Your task to perform on an android device: Open Amazon Image 0: 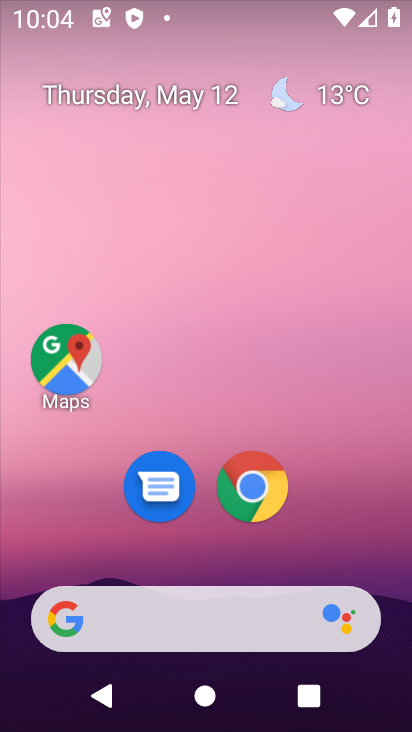
Step 0: click (261, 488)
Your task to perform on an android device: Open Amazon Image 1: 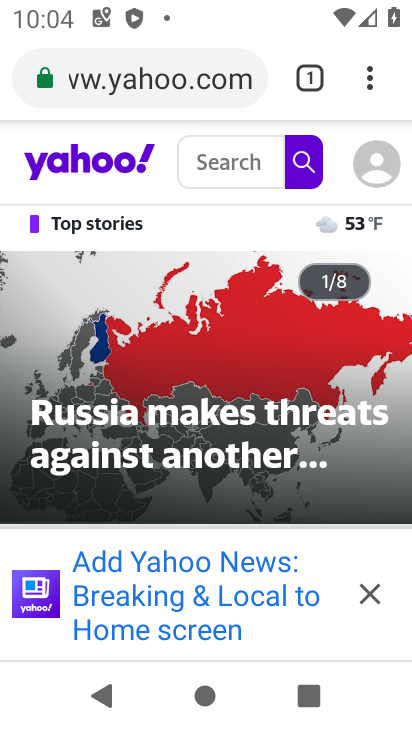
Step 1: click (304, 85)
Your task to perform on an android device: Open Amazon Image 2: 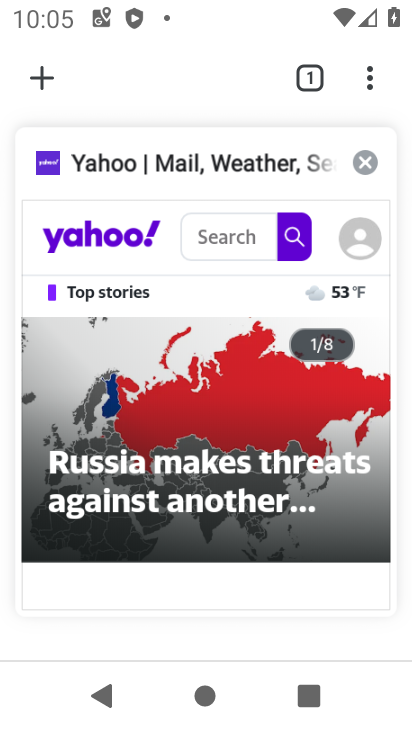
Step 2: click (370, 166)
Your task to perform on an android device: Open Amazon Image 3: 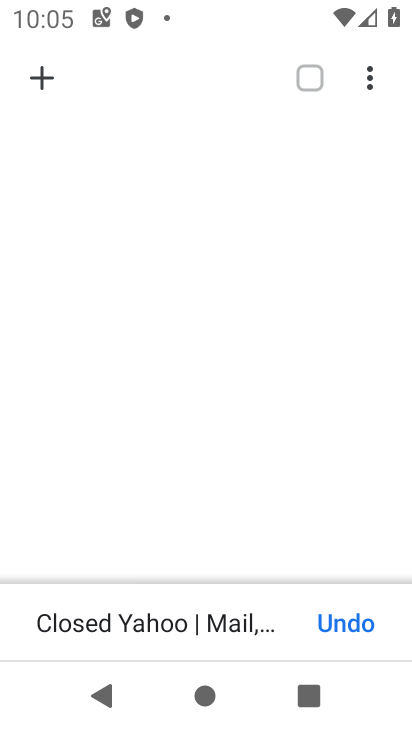
Step 3: click (43, 87)
Your task to perform on an android device: Open Amazon Image 4: 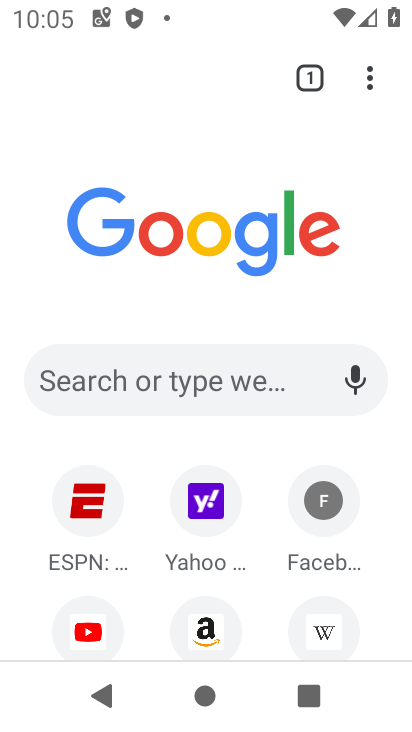
Step 4: click (209, 615)
Your task to perform on an android device: Open Amazon Image 5: 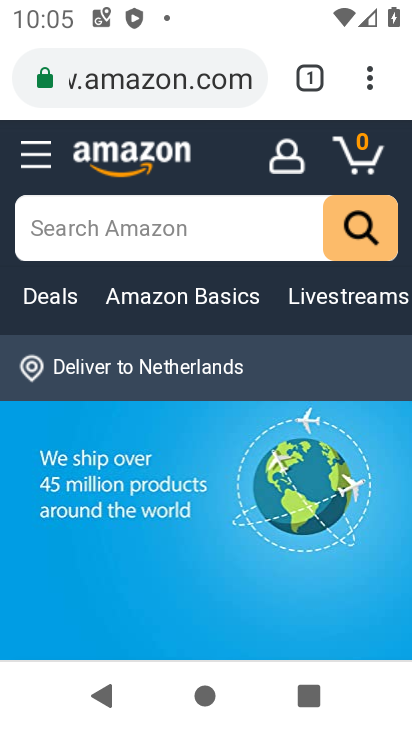
Step 5: task complete